Your task to perform on an android device: install app "Firefox Browser" Image 0: 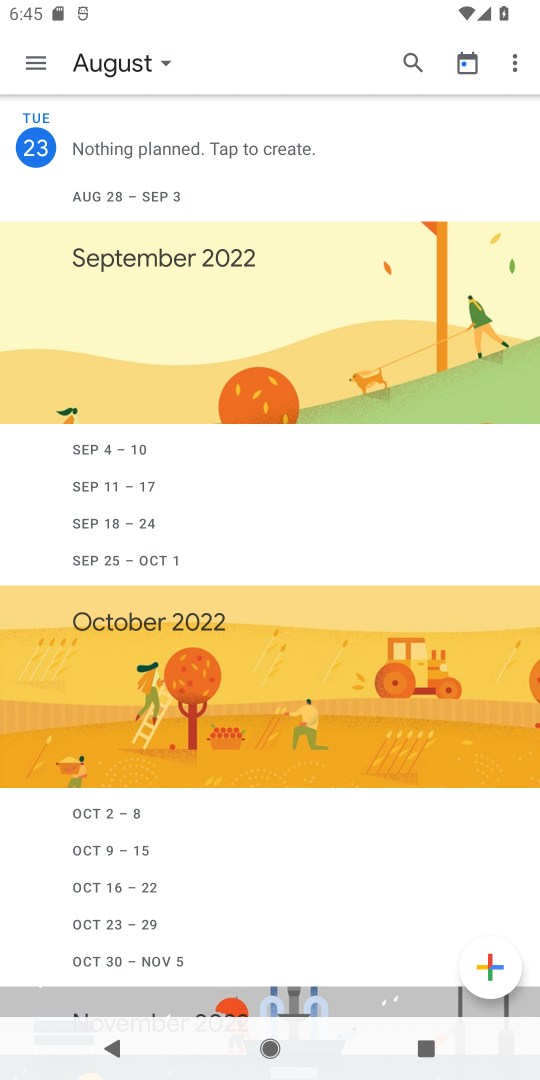
Step 0: press home button
Your task to perform on an android device: install app "Firefox Browser" Image 1: 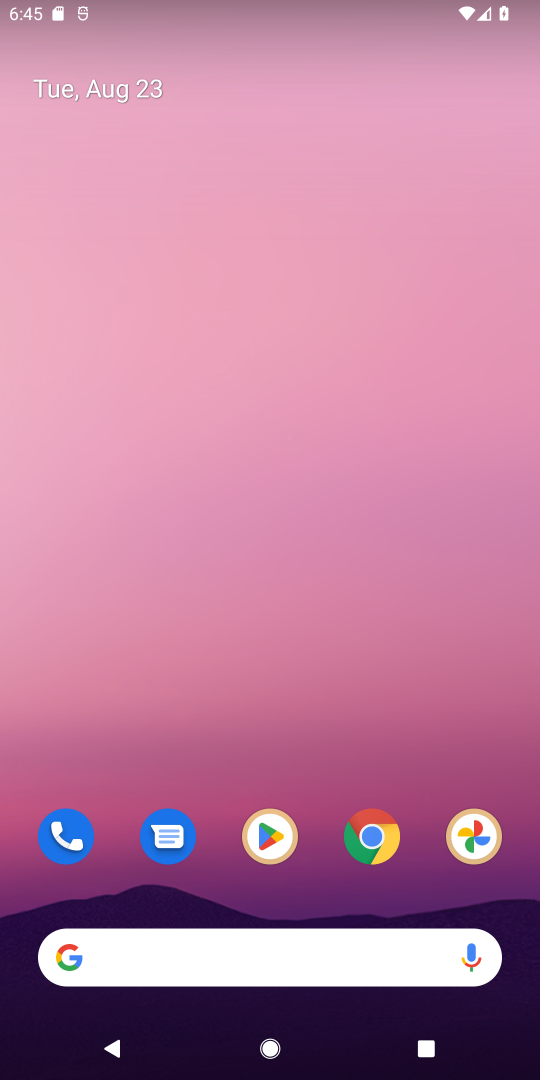
Step 1: click (290, 842)
Your task to perform on an android device: install app "Firefox Browser" Image 2: 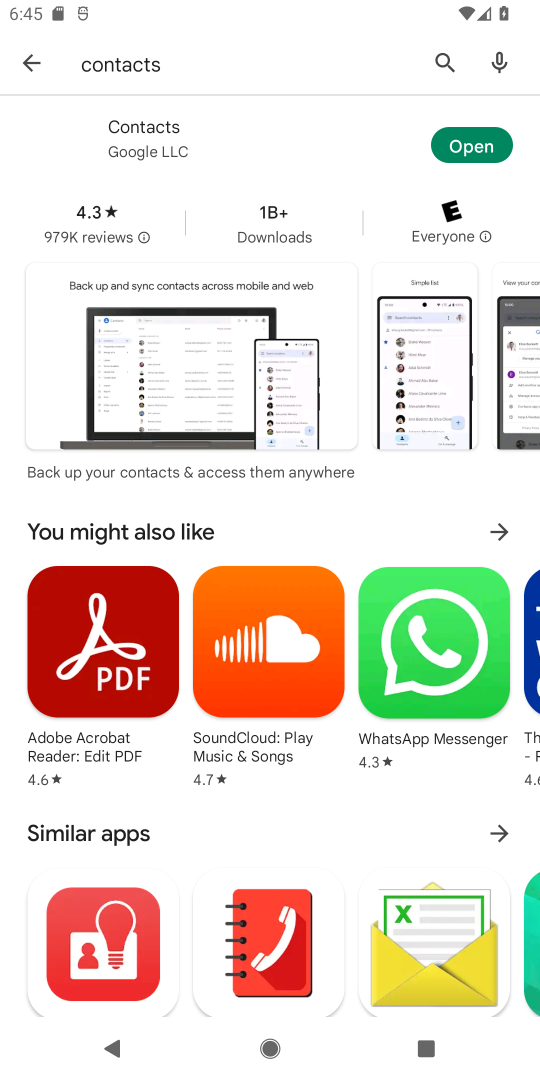
Step 2: click (441, 54)
Your task to perform on an android device: install app "Firefox Browser" Image 3: 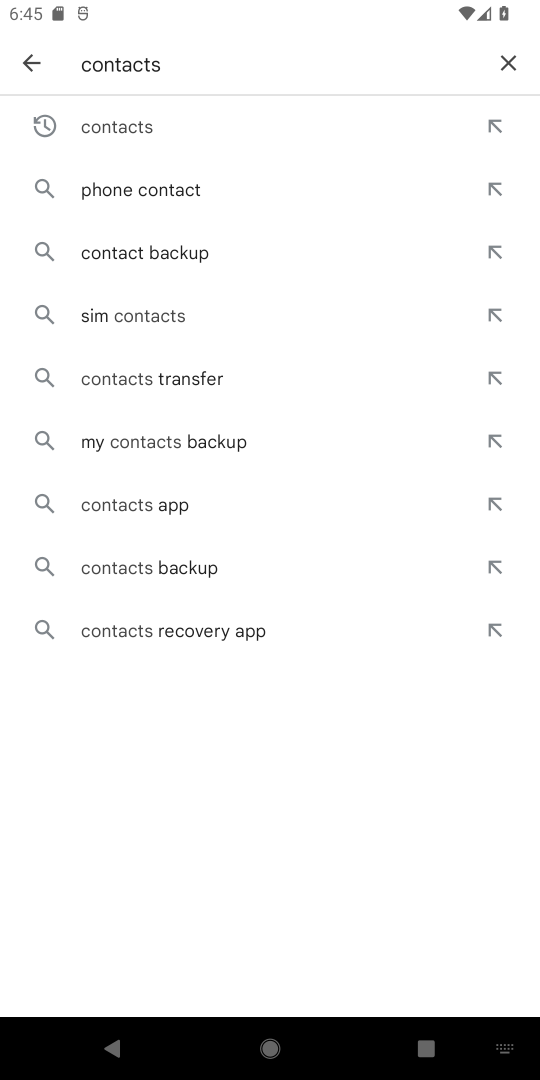
Step 3: click (507, 67)
Your task to perform on an android device: install app "Firefox Browser" Image 4: 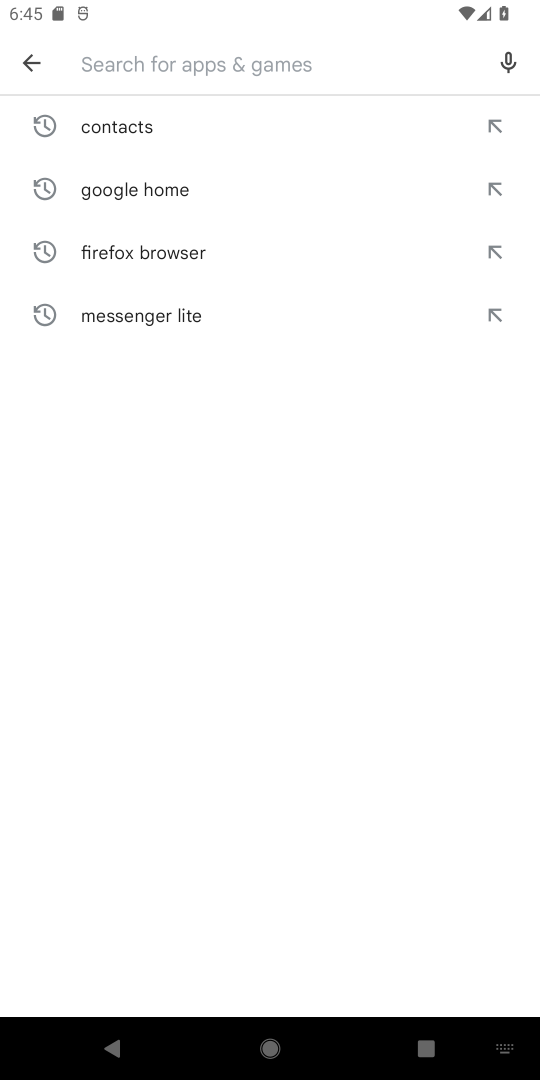
Step 4: type "Firefox Browser"
Your task to perform on an android device: install app "Firefox Browser" Image 5: 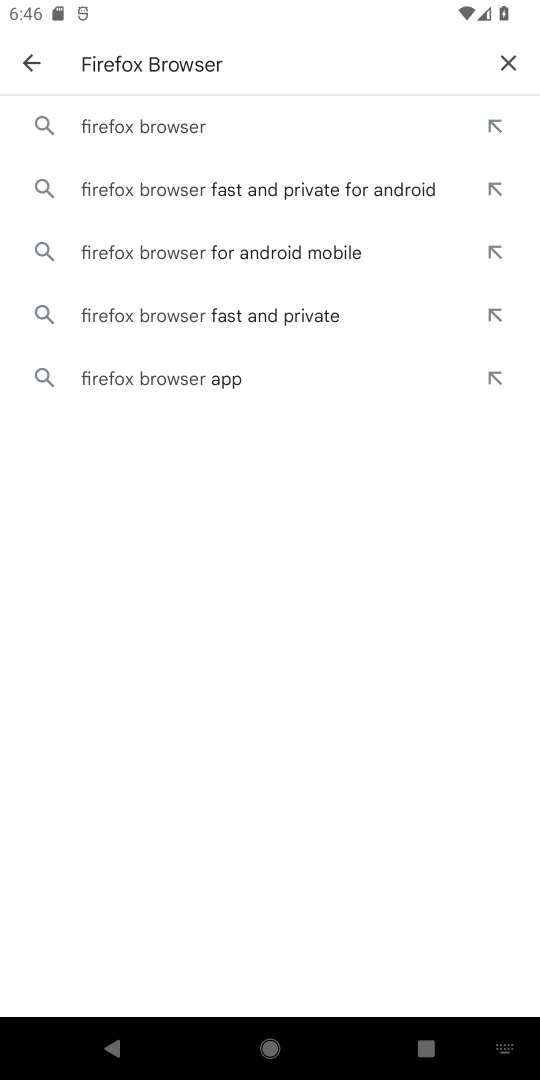
Step 5: click (173, 126)
Your task to perform on an android device: install app "Firefox Browser" Image 6: 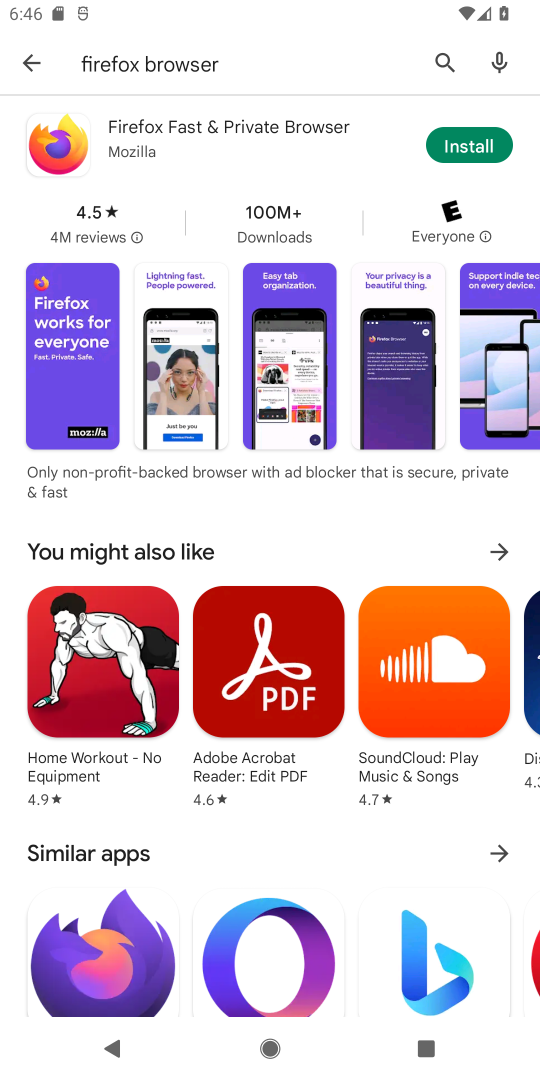
Step 6: click (465, 143)
Your task to perform on an android device: install app "Firefox Browser" Image 7: 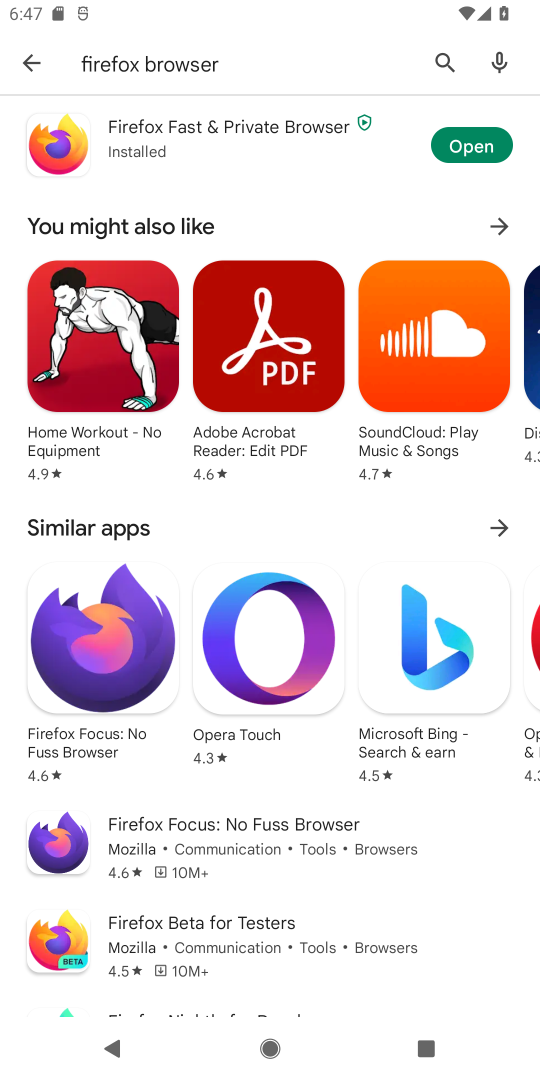
Step 7: task complete